Your task to perform on an android device: Do I have any events this weekend? Image 0: 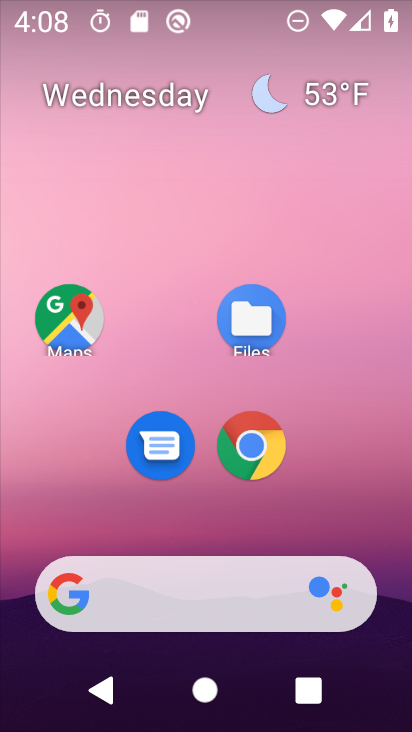
Step 0: drag from (333, 480) to (395, 65)
Your task to perform on an android device: Do I have any events this weekend? Image 1: 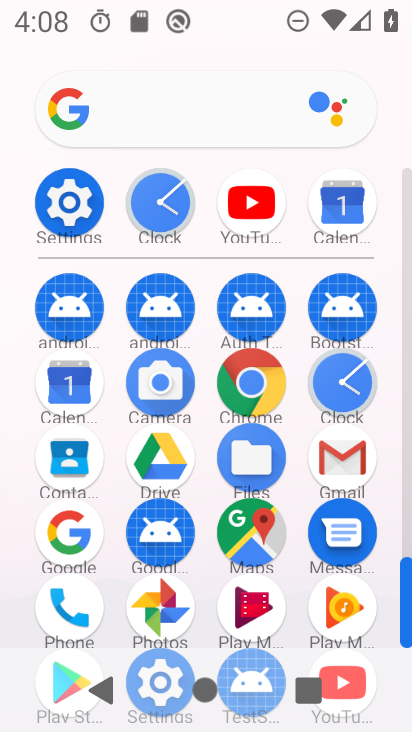
Step 1: click (76, 398)
Your task to perform on an android device: Do I have any events this weekend? Image 2: 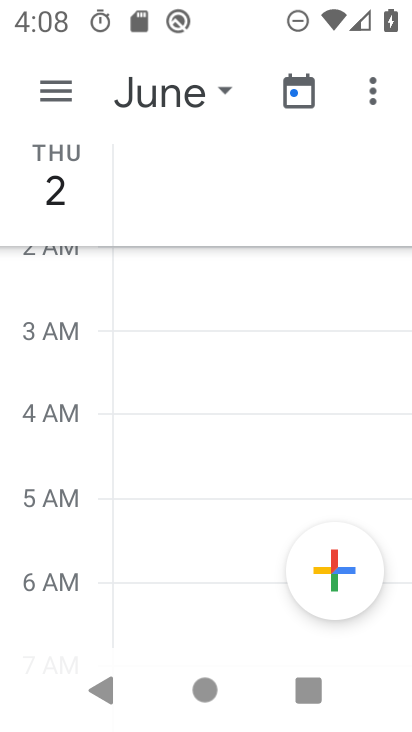
Step 2: click (62, 91)
Your task to perform on an android device: Do I have any events this weekend? Image 3: 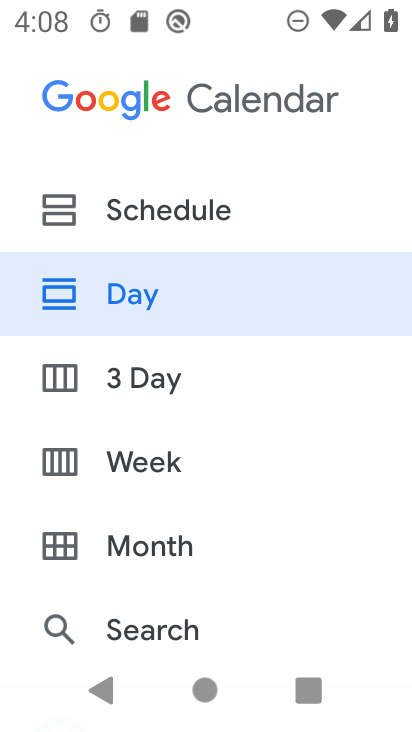
Step 3: click (119, 561)
Your task to perform on an android device: Do I have any events this weekend? Image 4: 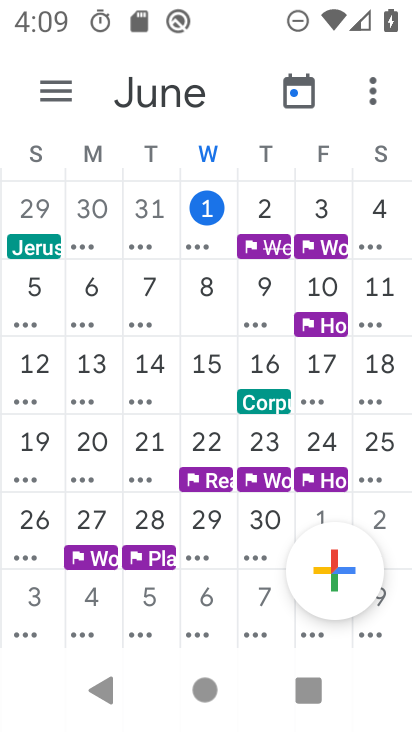
Step 4: task complete